Your task to perform on an android device: How do I get to the nearest Target? Image 0: 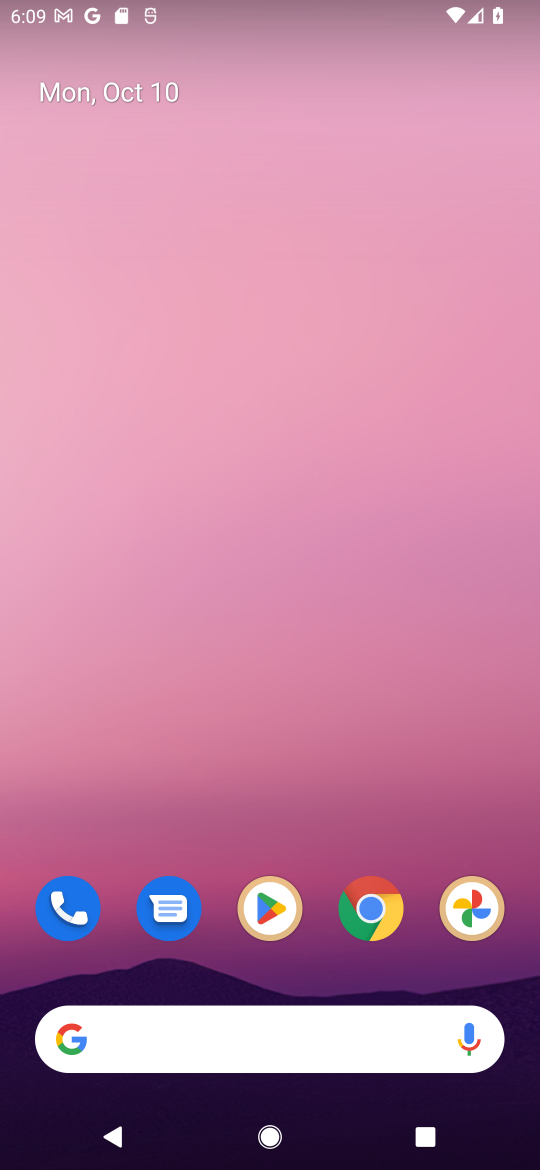
Step 0: drag from (301, 986) to (265, 210)
Your task to perform on an android device: How do I get to the nearest Target? Image 1: 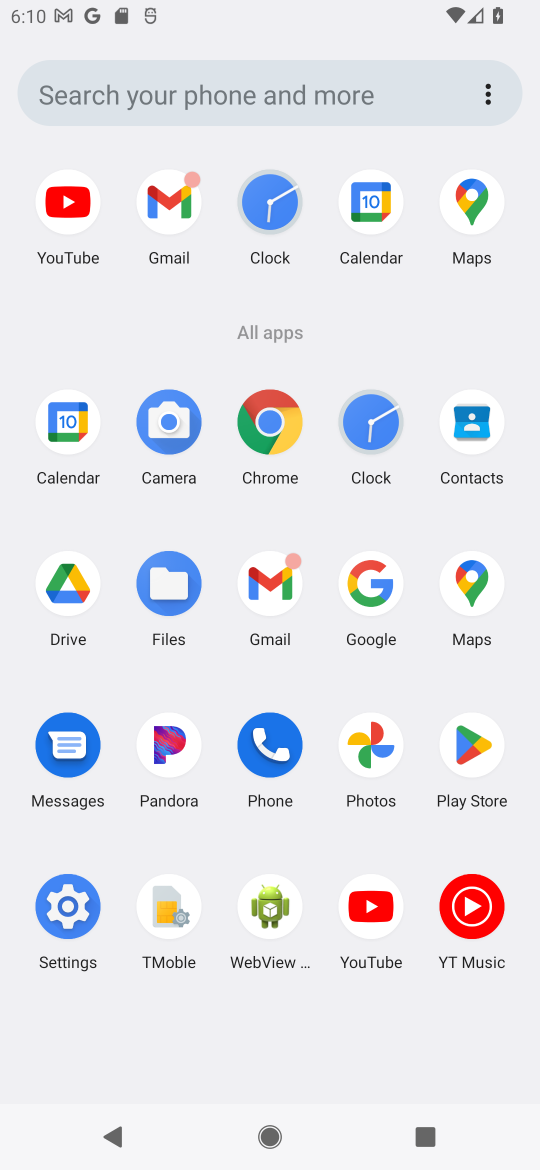
Step 1: click (274, 427)
Your task to perform on an android device: How do I get to the nearest Target? Image 2: 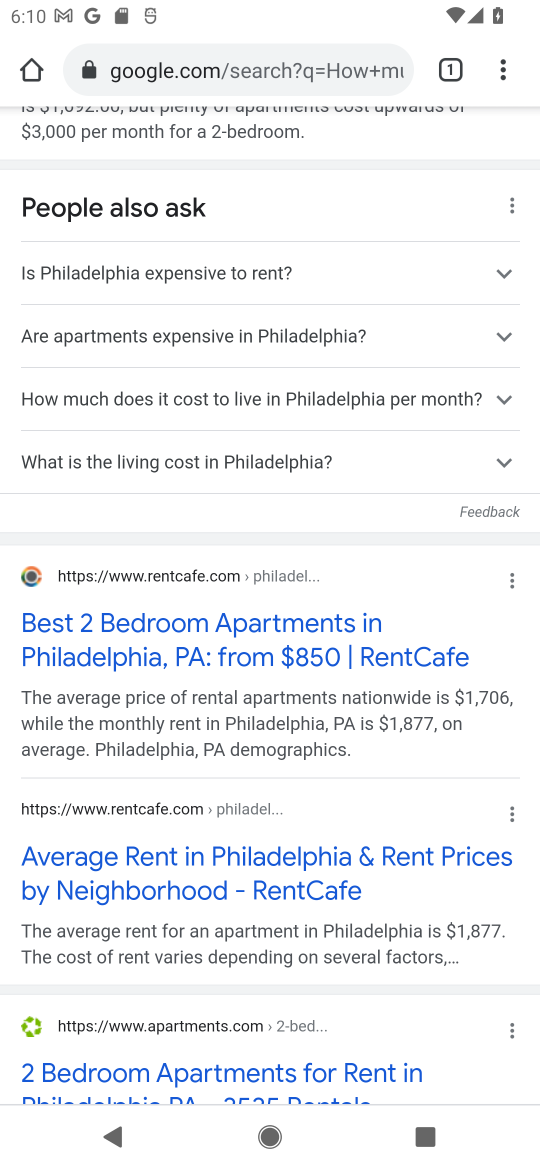
Step 2: click (258, 59)
Your task to perform on an android device: How do I get to the nearest Target? Image 3: 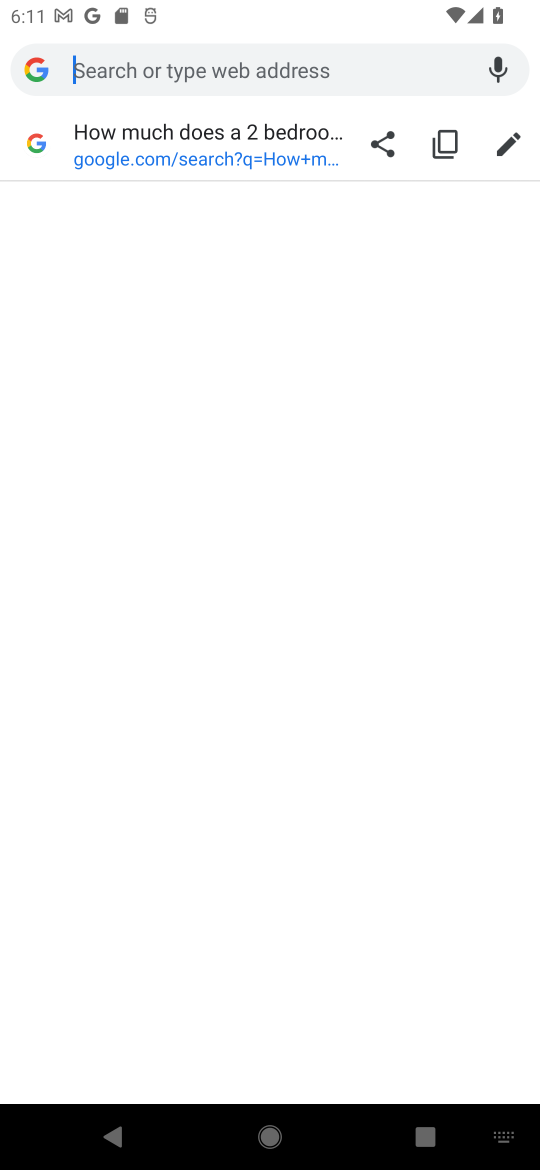
Step 3: type "How do I Get to the nearest Target?"
Your task to perform on an android device: How do I get to the nearest Target? Image 4: 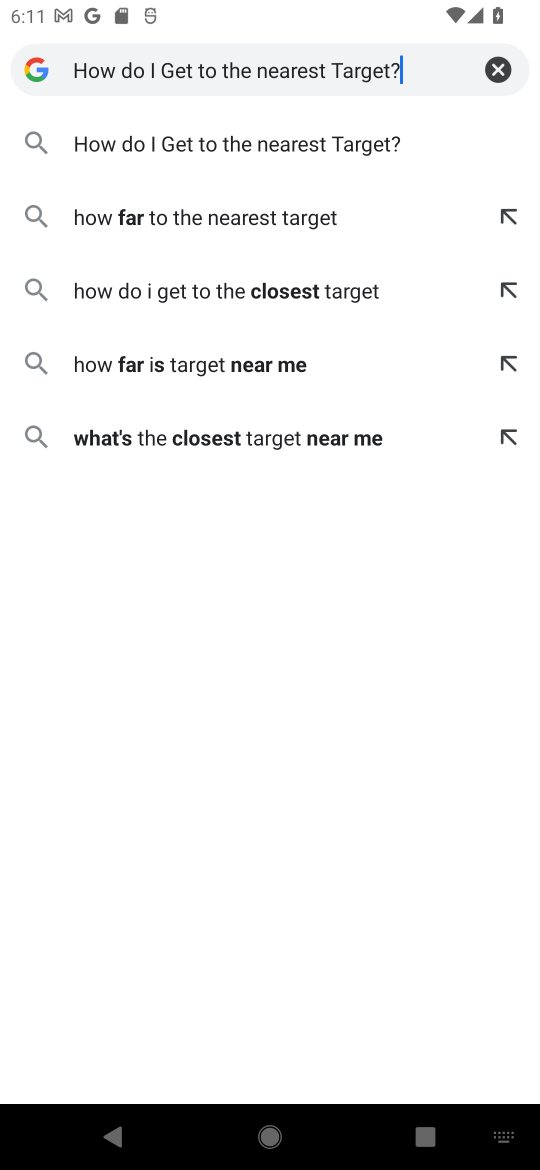
Step 4: press enter
Your task to perform on an android device: How do I get to the nearest Target? Image 5: 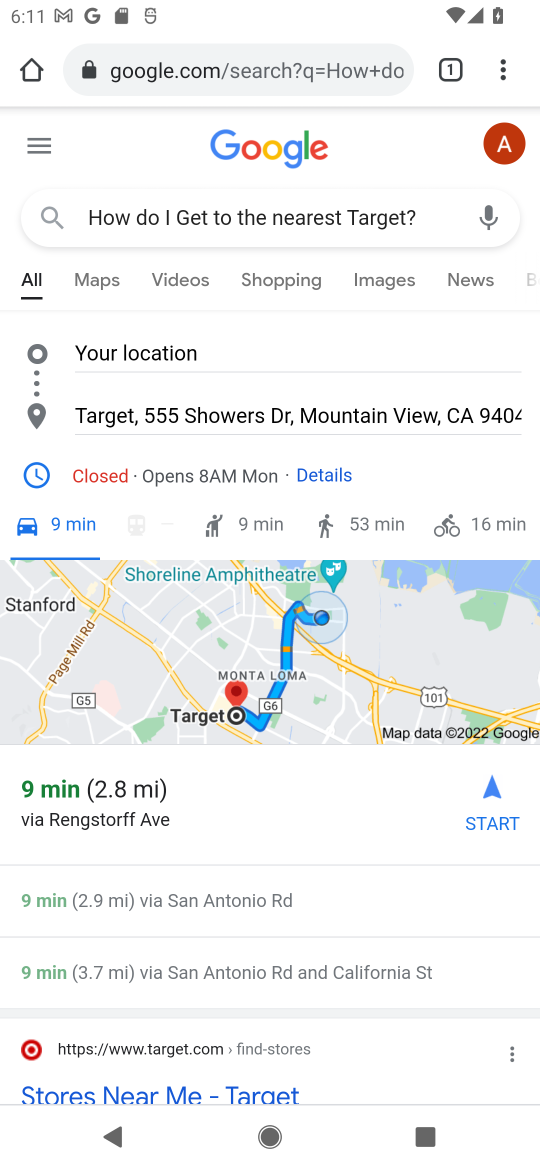
Step 5: task complete